Your task to perform on an android device: Open notification settings Image 0: 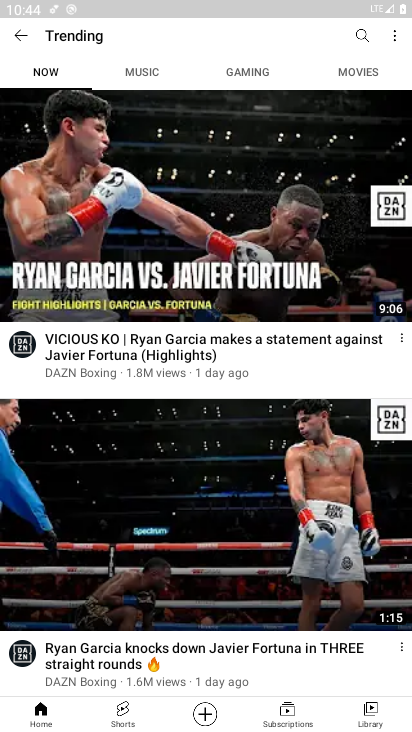
Step 0: press home button
Your task to perform on an android device: Open notification settings Image 1: 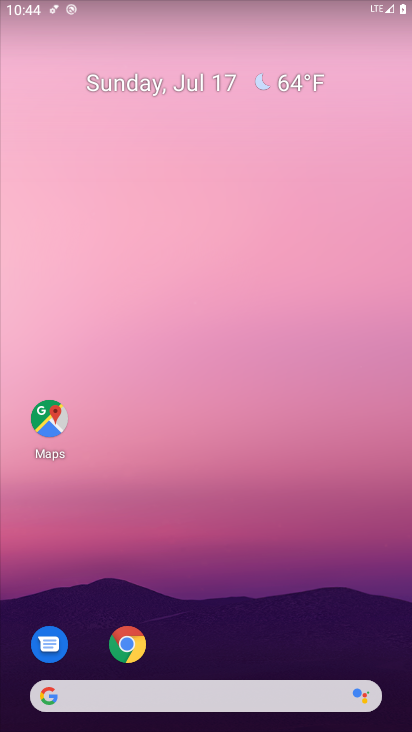
Step 1: drag from (279, 652) to (286, 100)
Your task to perform on an android device: Open notification settings Image 2: 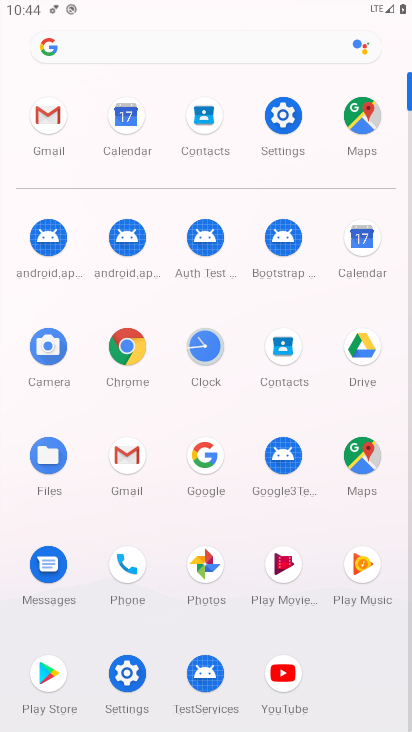
Step 2: click (290, 110)
Your task to perform on an android device: Open notification settings Image 3: 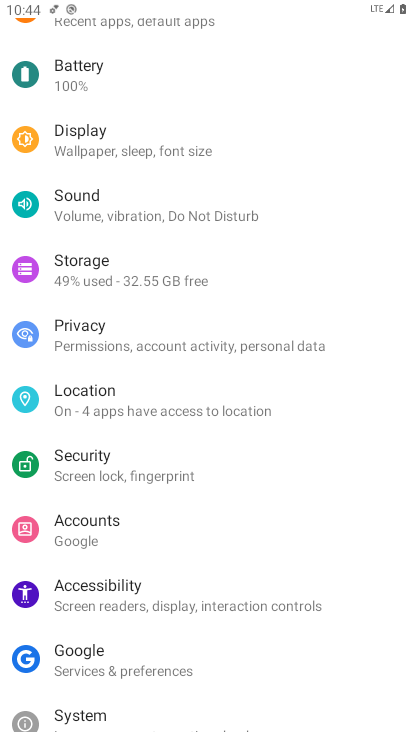
Step 3: drag from (211, 43) to (224, 456)
Your task to perform on an android device: Open notification settings Image 4: 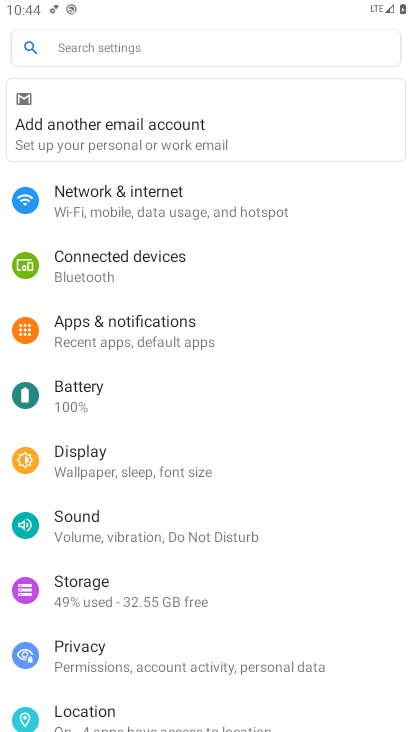
Step 4: click (113, 335)
Your task to perform on an android device: Open notification settings Image 5: 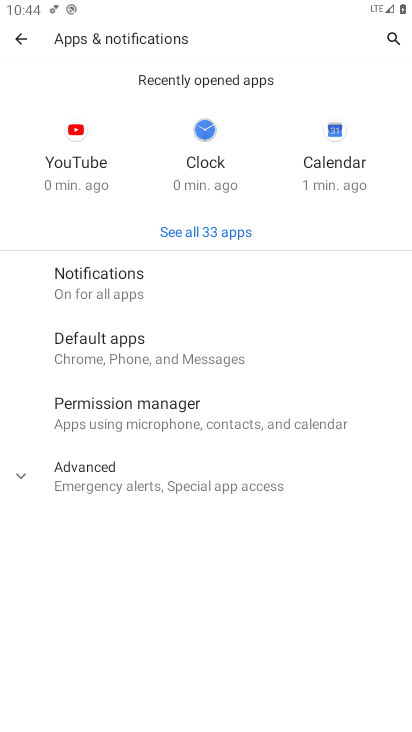
Step 5: click (106, 286)
Your task to perform on an android device: Open notification settings Image 6: 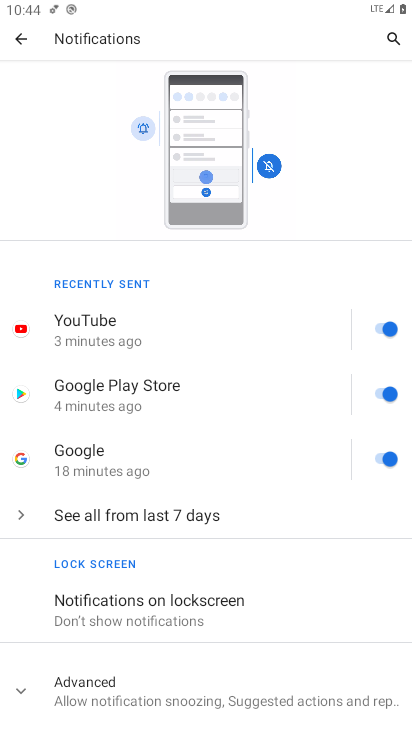
Step 6: task complete